Your task to perform on an android device: Open accessibility settings Image 0: 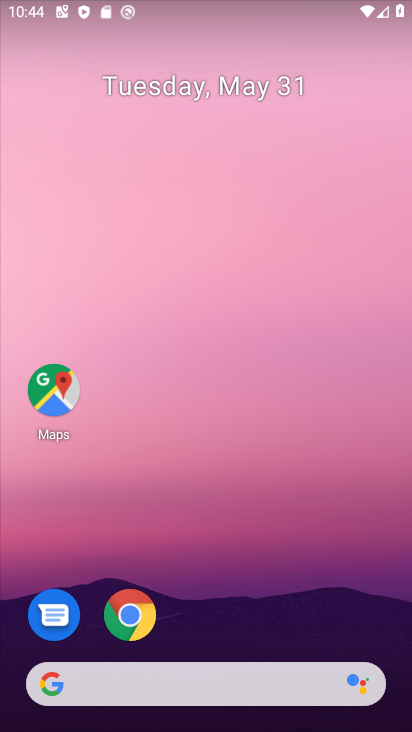
Step 0: drag from (313, 598) to (241, 56)
Your task to perform on an android device: Open accessibility settings Image 1: 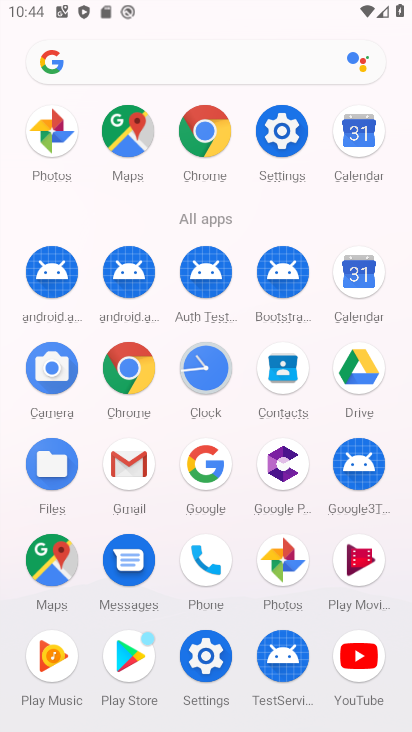
Step 1: click (276, 125)
Your task to perform on an android device: Open accessibility settings Image 2: 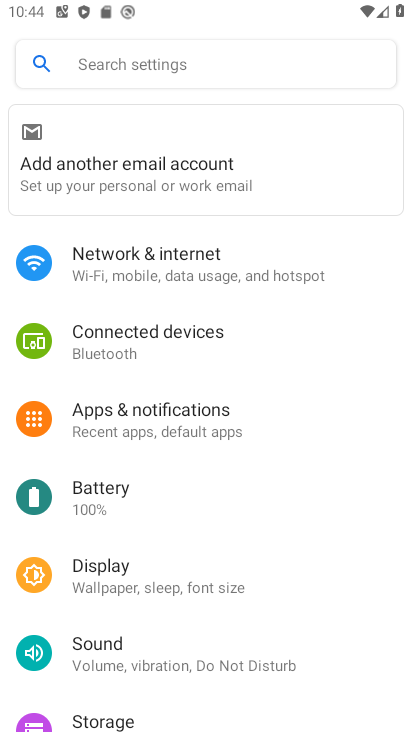
Step 2: task complete